Your task to perform on an android device: Is it going to rain tomorrow? Image 0: 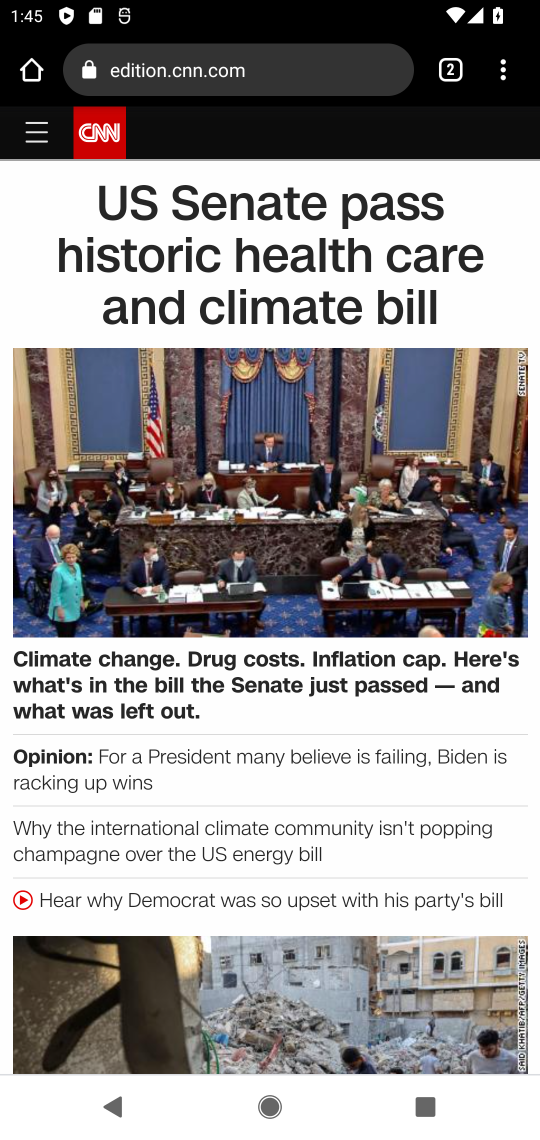
Step 0: press home button
Your task to perform on an android device: Is it going to rain tomorrow? Image 1: 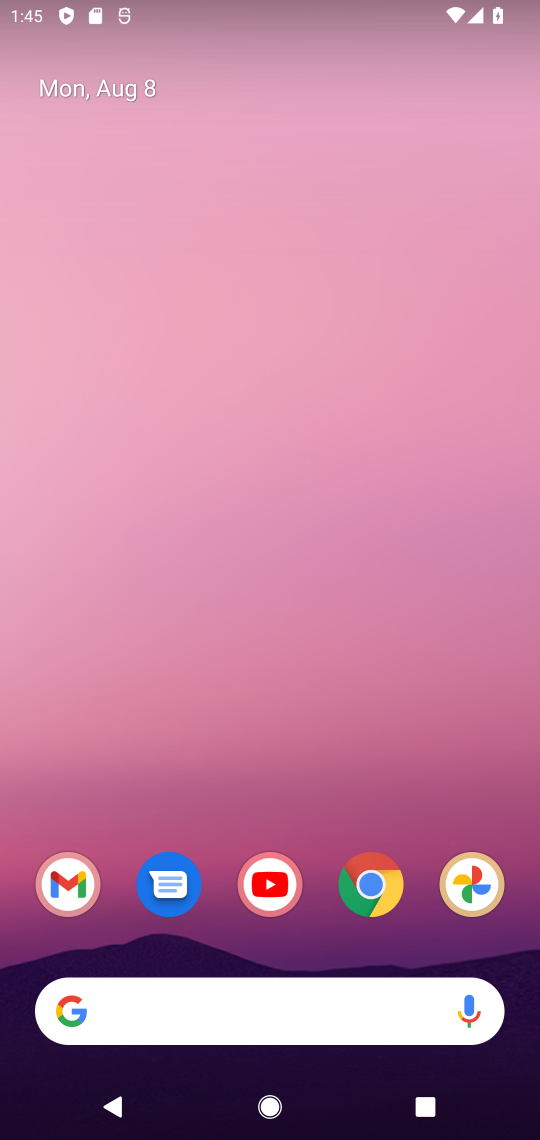
Step 1: click (241, 992)
Your task to perform on an android device: Is it going to rain tomorrow? Image 2: 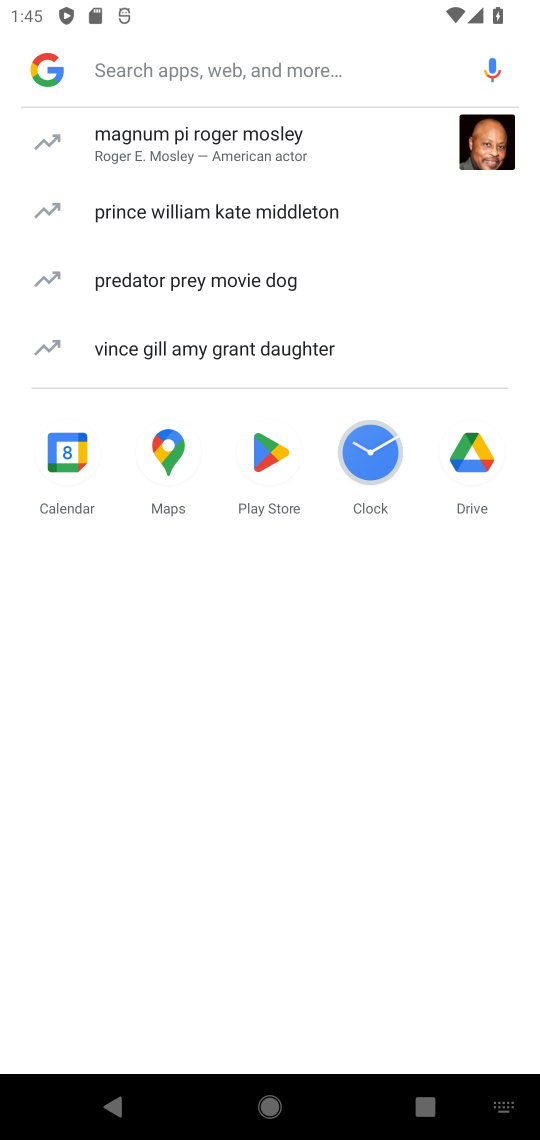
Step 2: type "Is it going to rain tomorrow"
Your task to perform on an android device: Is it going to rain tomorrow? Image 3: 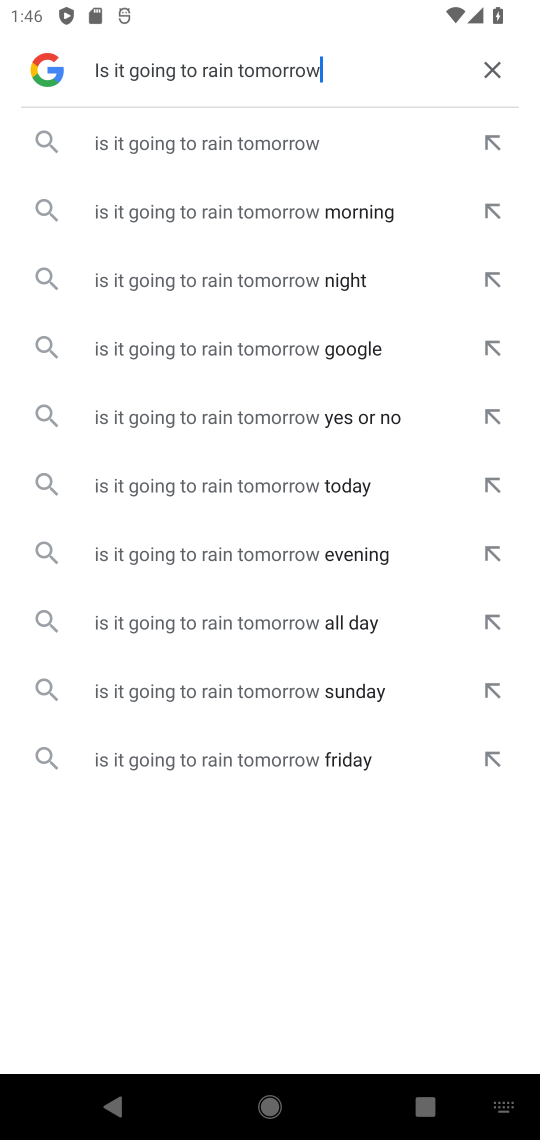
Step 3: click (276, 135)
Your task to perform on an android device: Is it going to rain tomorrow? Image 4: 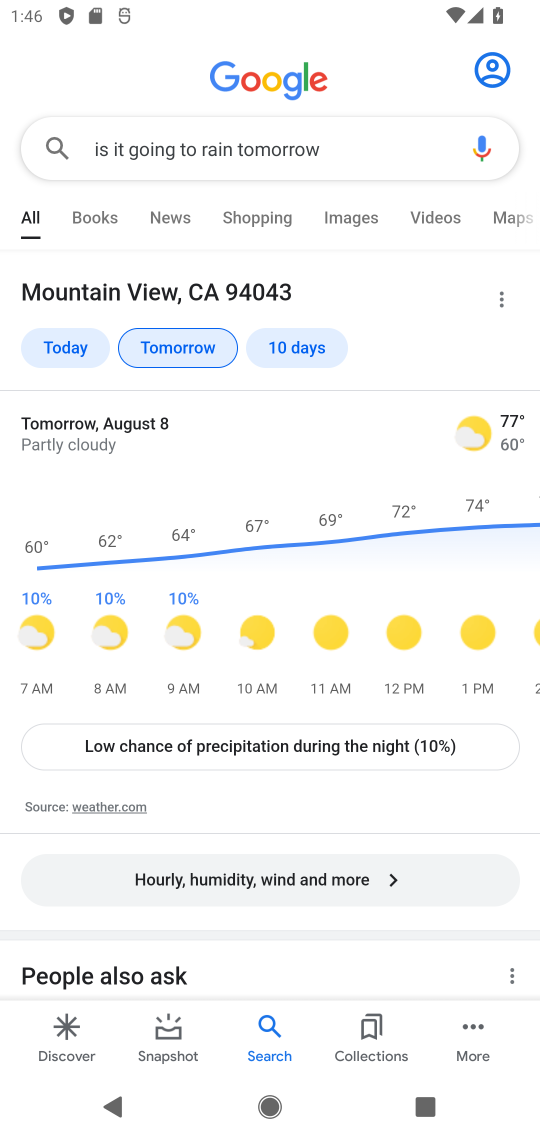
Step 4: task complete